Your task to perform on an android device: turn off improve location accuracy Image 0: 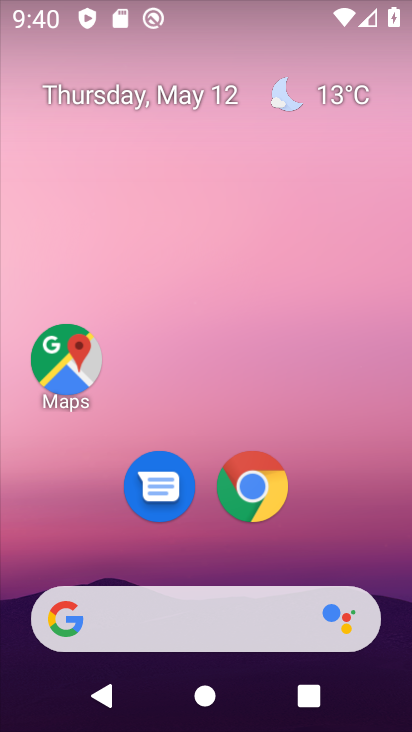
Step 0: drag from (361, 484) to (255, 113)
Your task to perform on an android device: turn off improve location accuracy Image 1: 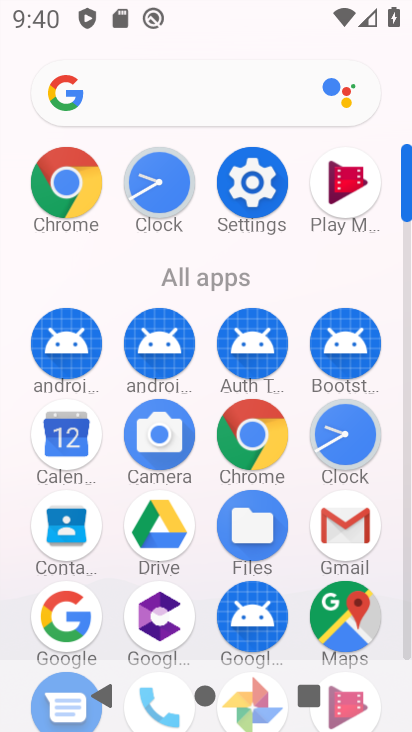
Step 1: click (259, 177)
Your task to perform on an android device: turn off improve location accuracy Image 2: 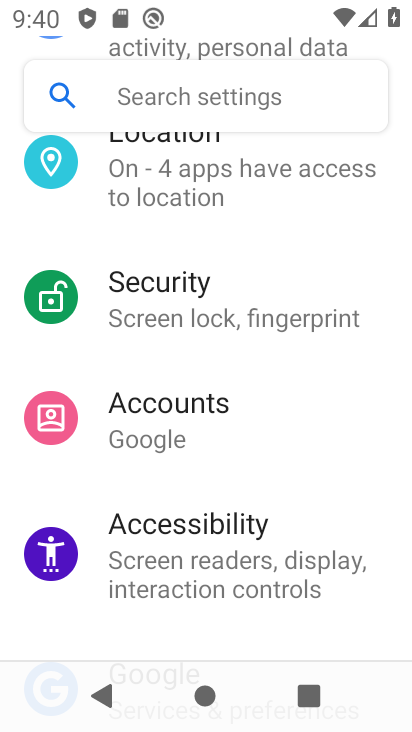
Step 2: click (198, 164)
Your task to perform on an android device: turn off improve location accuracy Image 3: 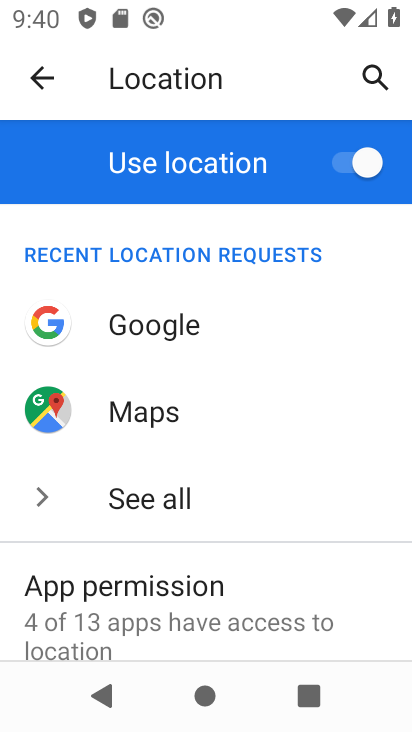
Step 3: drag from (289, 569) to (218, 268)
Your task to perform on an android device: turn off improve location accuracy Image 4: 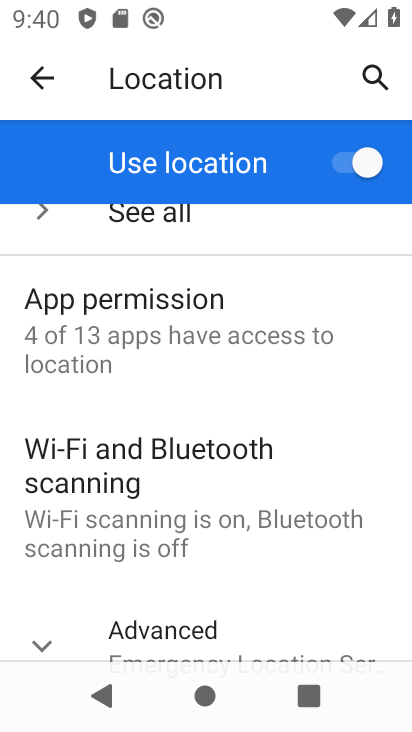
Step 4: drag from (280, 597) to (234, 306)
Your task to perform on an android device: turn off improve location accuracy Image 5: 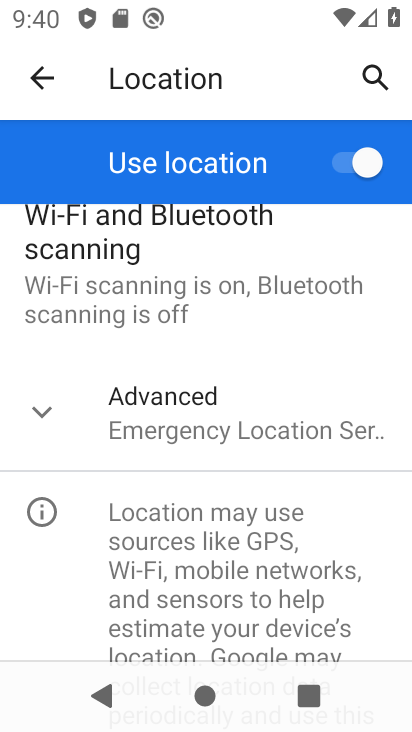
Step 5: click (177, 435)
Your task to perform on an android device: turn off improve location accuracy Image 6: 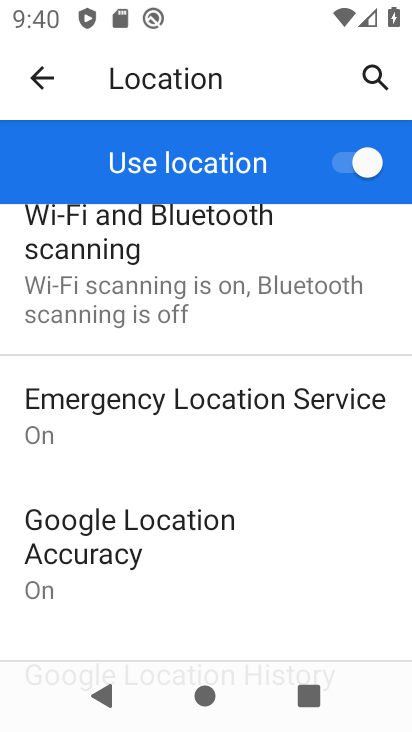
Step 6: click (238, 533)
Your task to perform on an android device: turn off improve location accuracy Image 7: 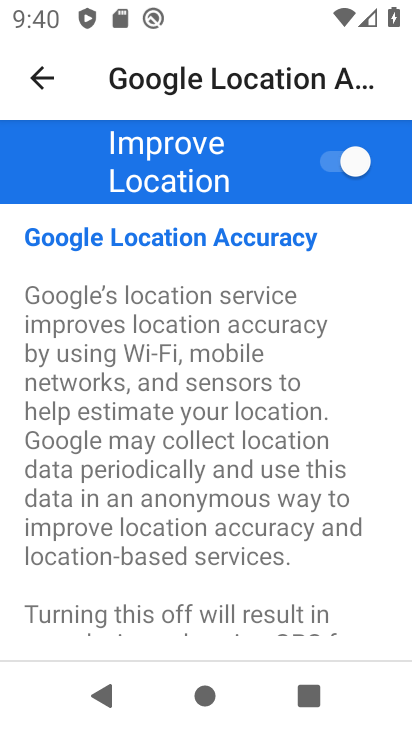
Step 7: click (345, 161)
Your task to perform on an android device: turn off improve location accuracy Image 8: 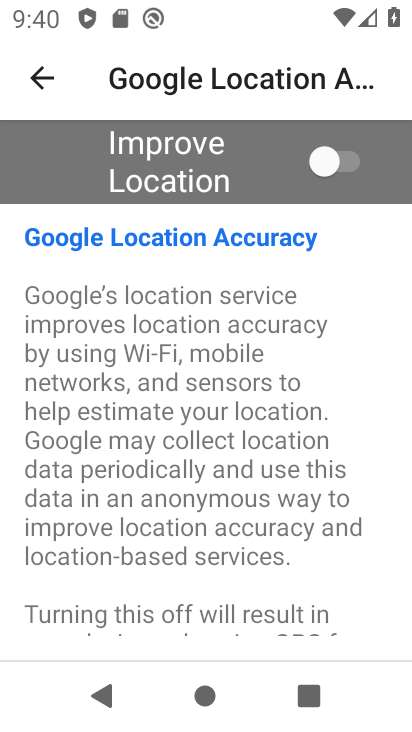
Step 8: task complete